Your task to perform on an android device: Open privacy settings Image 0: 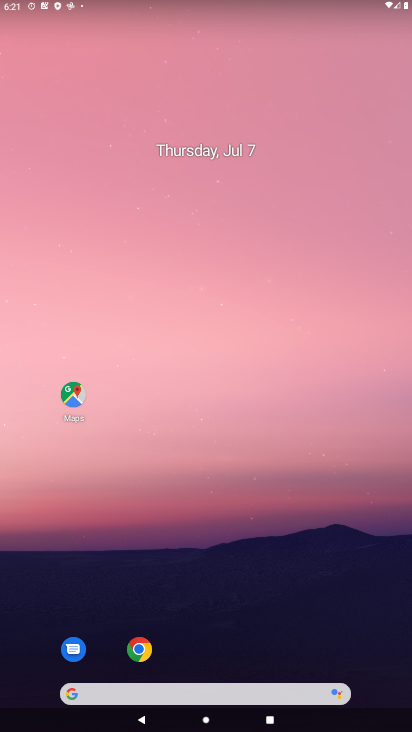
Step 0: drag from (365, 683) to (250, 60)
Your task to perform on an android device: Open privacy settings Image 1: 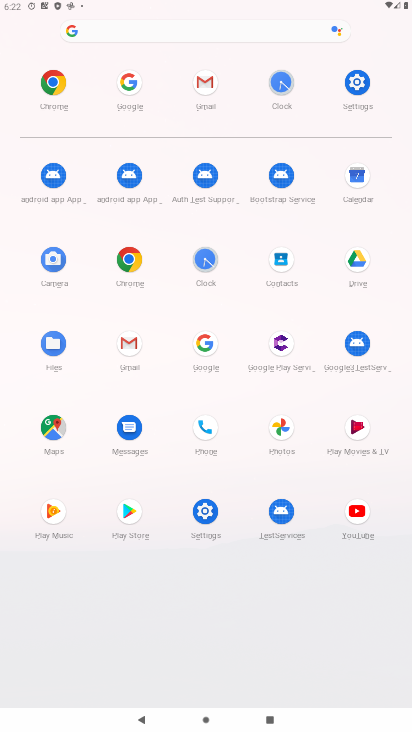
Step 1: click (354, 100)
Your task to perform on an android device: Open privacy settings Image 2: 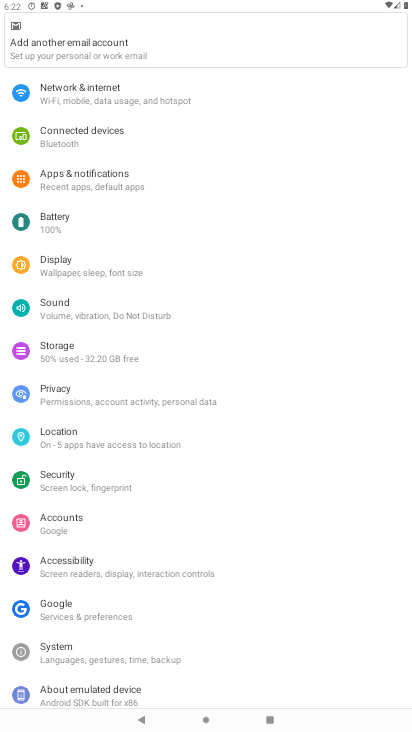
Step 2: click (62, 403)
Your task to perform on an android device: Open privacy settings Image 3: 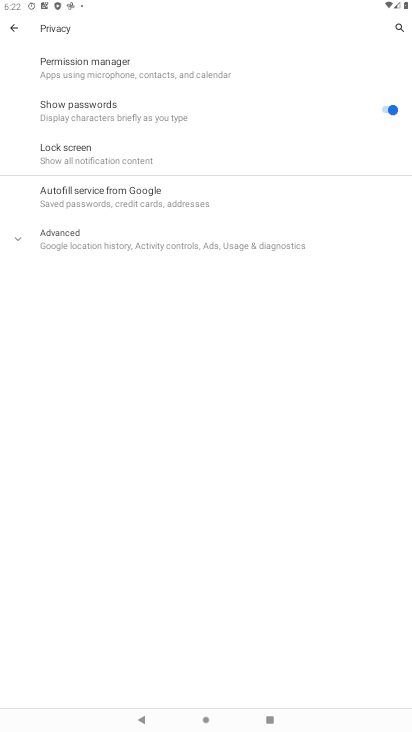
Step 3: task complete